Your task to perform on an android device: clear history in the chrome app Image 0: 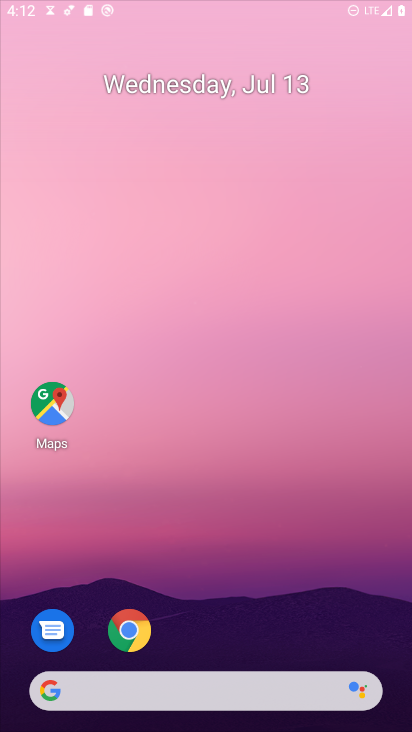
Step 0: press home button
Your task to perform on an android device: clear history in the chrome app Image 1: 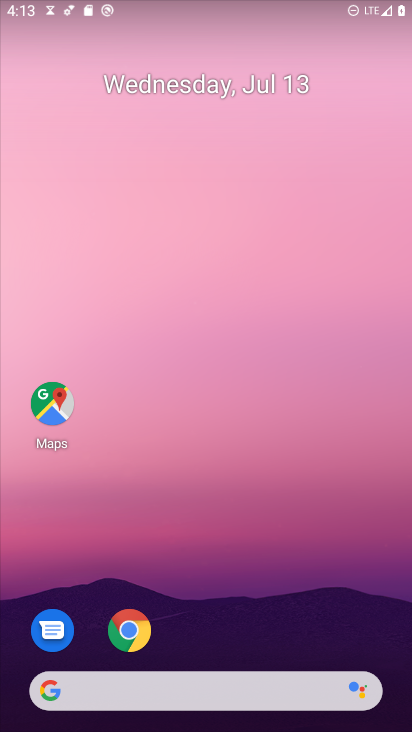
Step 1: drag from (271, 628) to (305, 111)
Your task to perform on an android device: clear history in the chrome app Image 2: 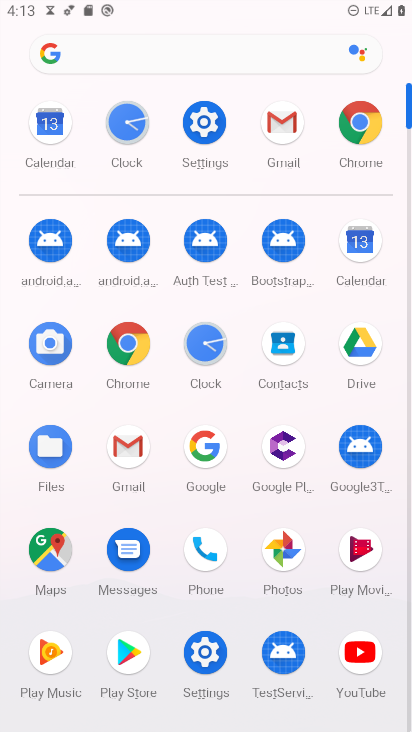
Step 2: click (361, 117)
Your task to perform on an android device: clear history in the chrome app Image 3: 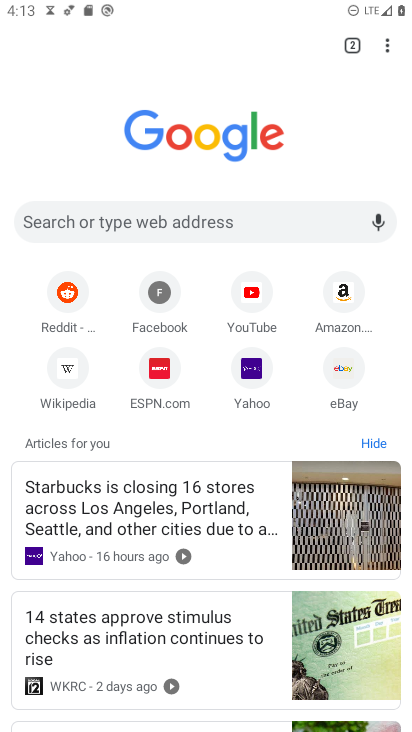
Step 3: click (384, 43)
Your task to perform on an android device: clear history in the chrome app Image 4: 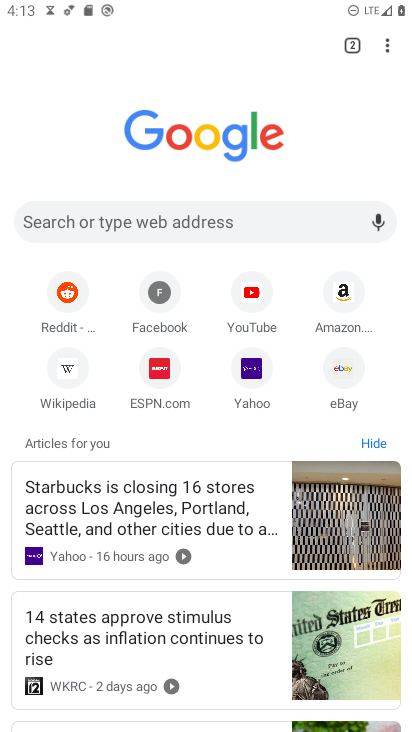
Step 4: drag from (393, 56) to (229, 321)
Your task to perform on an android device: clear history in the chrome app Image 5: 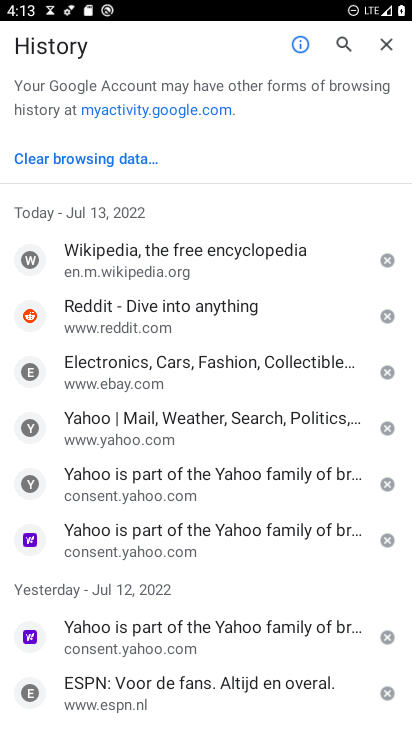
Step 5: click (79, 167)
Your task to perform on an android device: clear history in the chrome app Image 6: 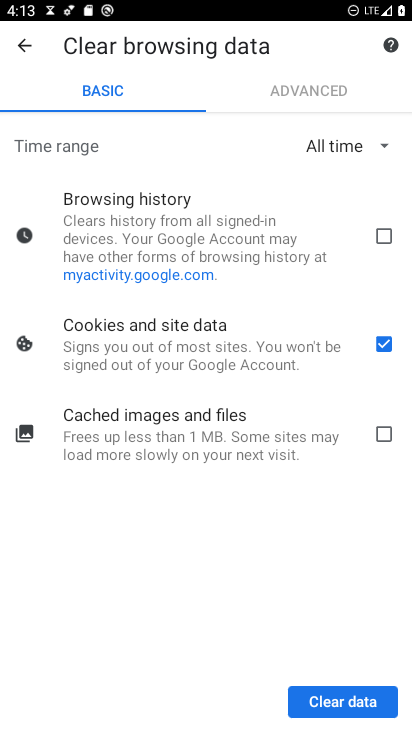
Step 6: click (388, 237)
Your task to perform on an android device: clear history in the chrome app Image 7: 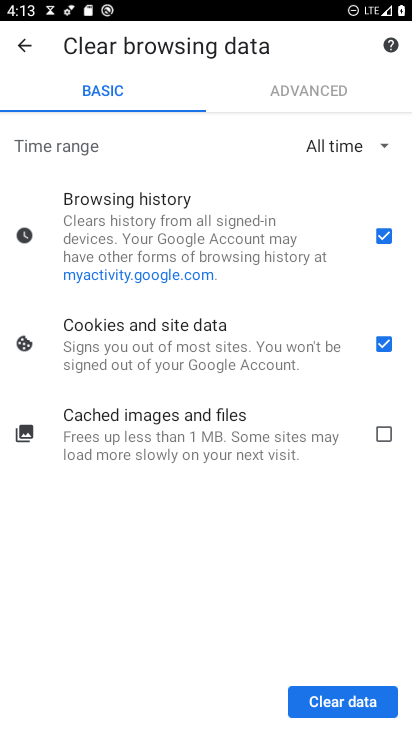
Step 7: click (382, 441)
Your task to perform on an android device: clear history in the chrome app Image 8: 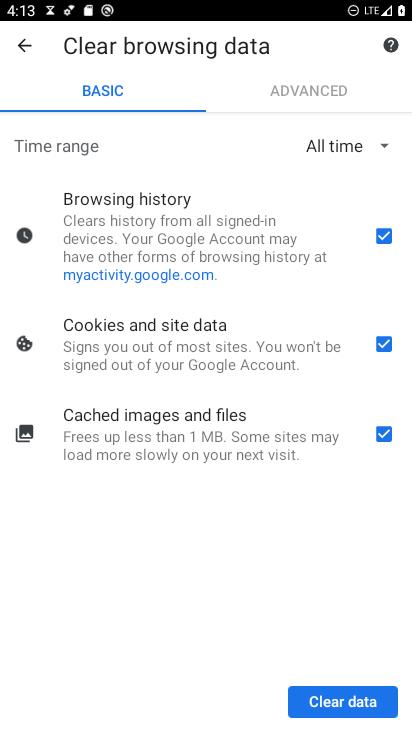
Step 8: click (331, 707)
Your task to perform on an android device: clear history in the chrome app Image 9: 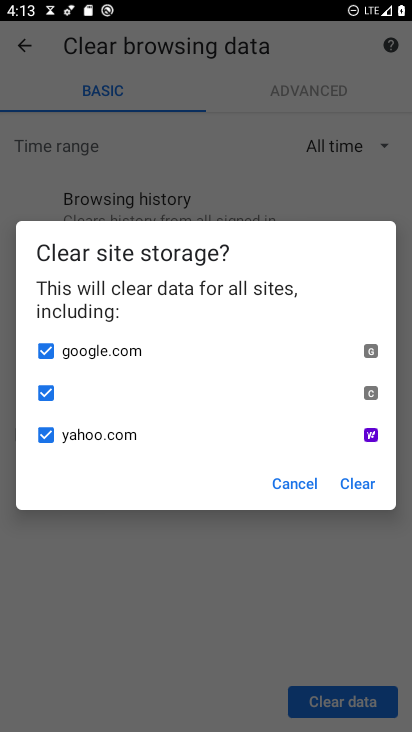
Step 9: click (361, 488)
Your task to perform on an android device: clear history in the chrome app Image 10: 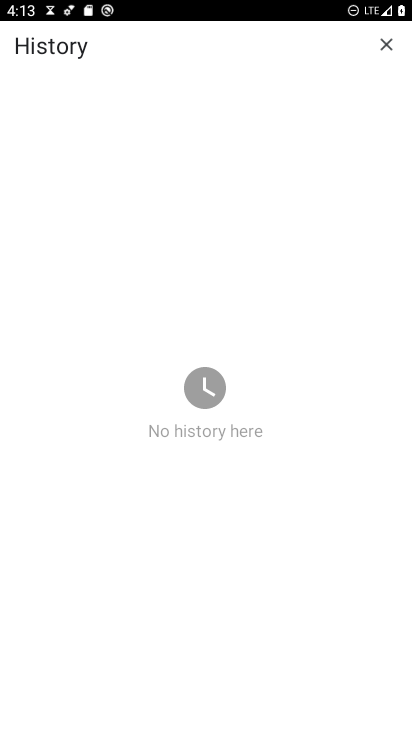
Step 10: task complete